Your task to perform on an android device: turn on the 12-hour format for clock Image 0: 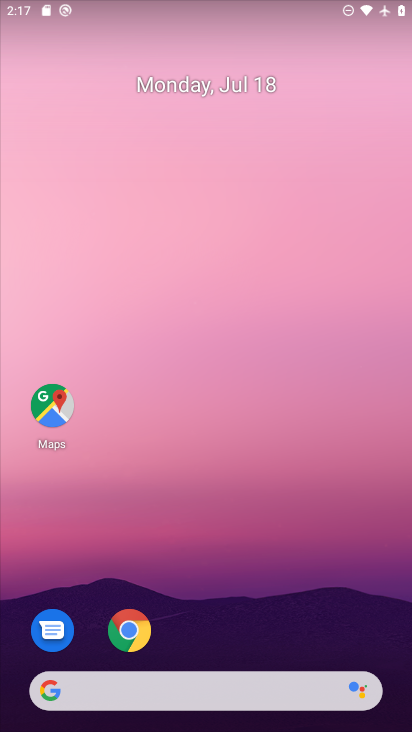
Step 0: drag from (310, 580) to (3, 90)
Your task to perform on an android device: turn on the 12-hour format for clock Image 1: 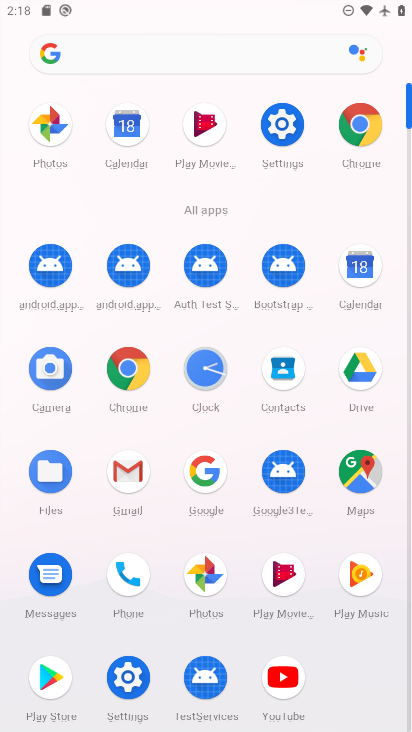
Step 1: click (281, 125)
Your task to perform on an android device: turn on the 12-hour format for clock Image 2: 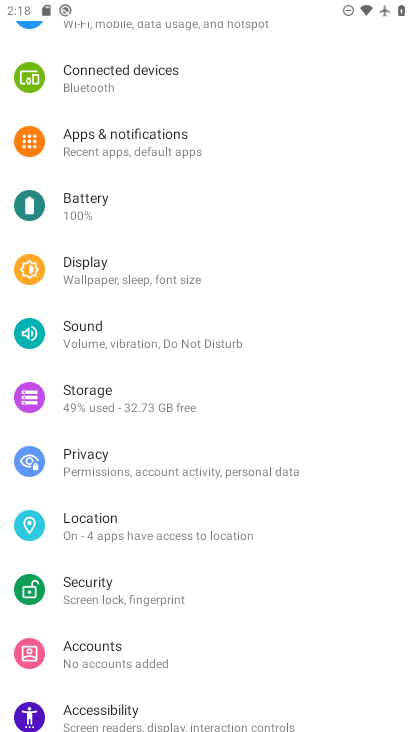
Step 2: drag from (283, 622) to (178, 113)
Your task to perform on an android device: turn on the 12-hour format for clock Image 3: 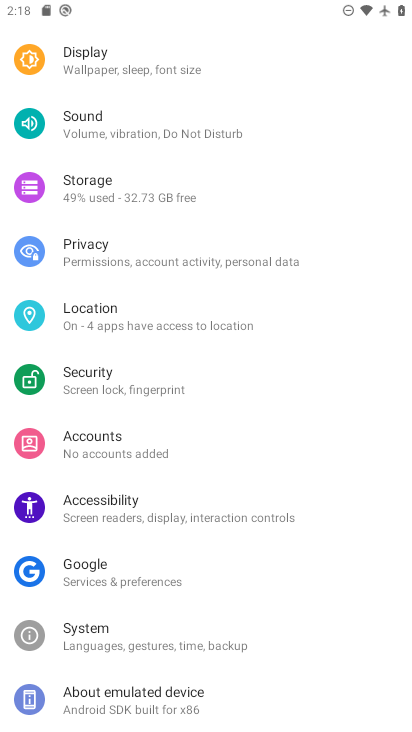
Step 3: click (117, 637)
Your task to perform on an android device: turn on the 12-hour format for clock Image 4: 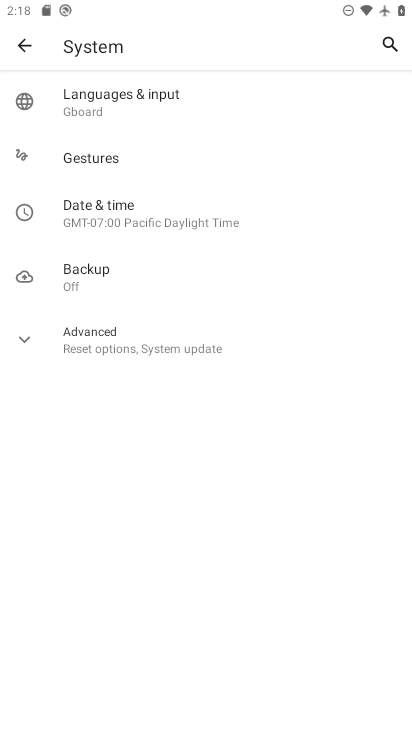
Step 4: click (109, 209)
Your task to perform on an android device: turn on the 12-hour format for clock Image 5: 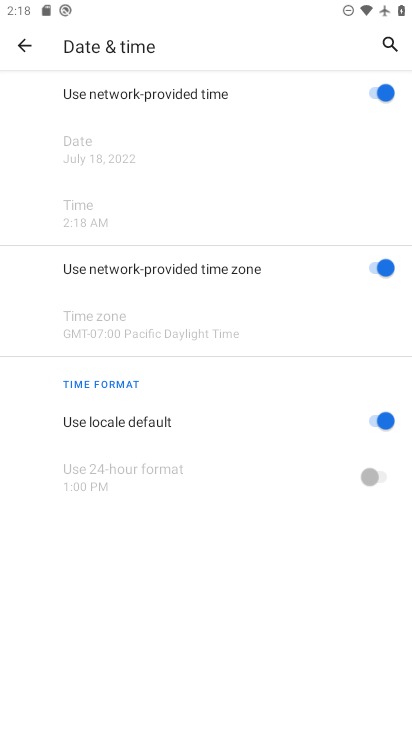
Step 5: click (386, 418)
Your task to perform on an android device: turn on the 12-hour format for clock Image 6: 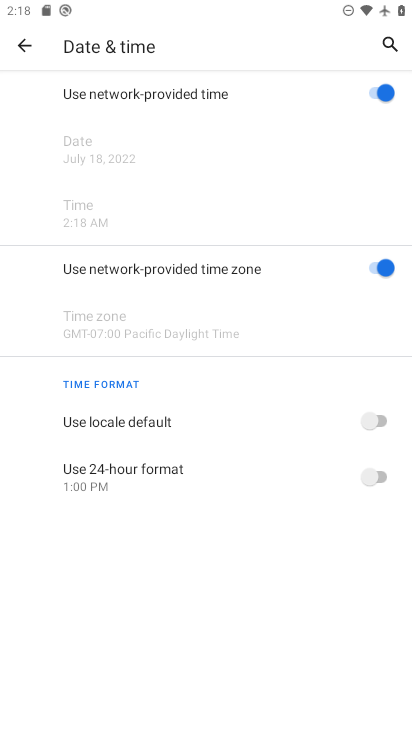
Step 6: task complete